Your task to perform on an android device: toggle notification dots Image 0: 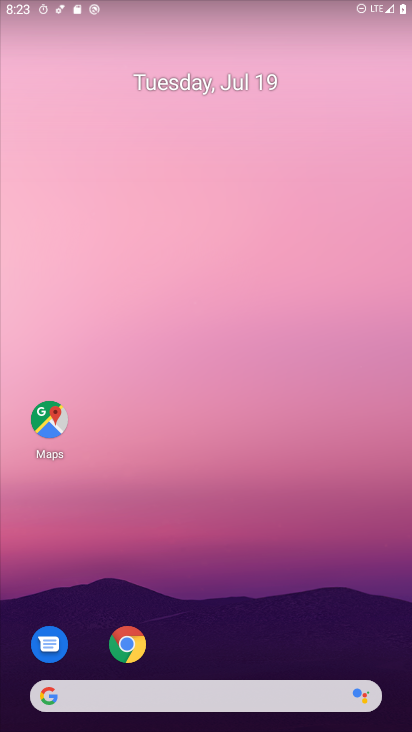
Step 0: drag from (17, 708) to (123, 196)
Your task to perform on an android device: toggle notification dots Image 1: 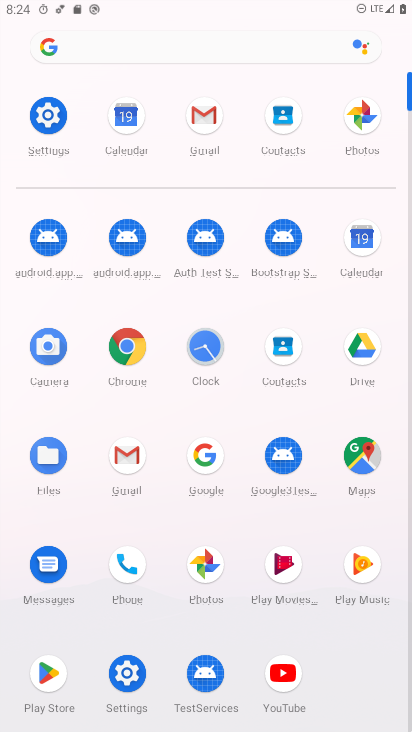
Step 1: click (135, 673)
Your task to perform on an android device: toggle notification dots Image 2: 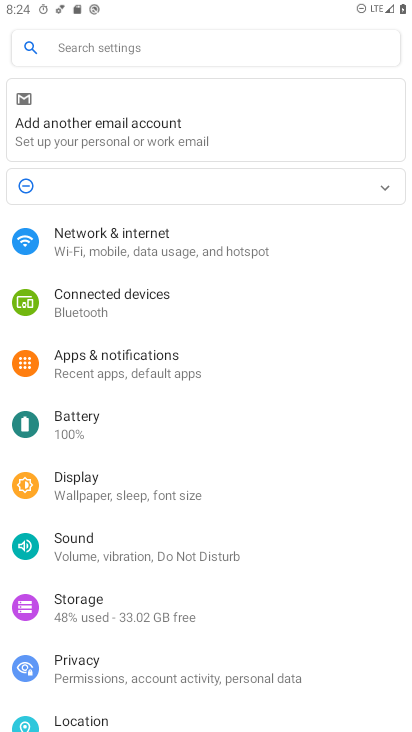
Step 2: click (166, 372)
Your task to perform on an android device: toggle notification dots Image 3: 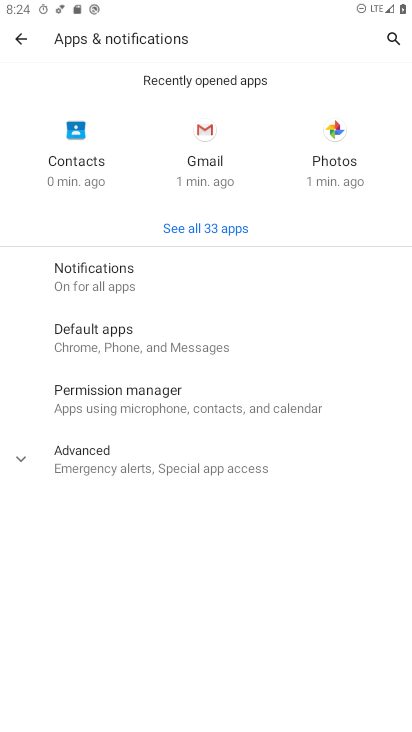
Step 3: click (134, 454)
Your task to perform on an android device: toggle notification dots Image 4: 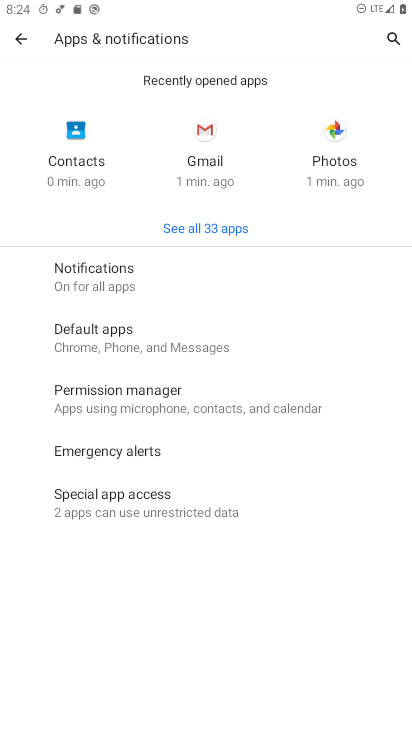
Step 4: click (100, 278)
Your task to perform on an android device: toggle notification dots Image 5: 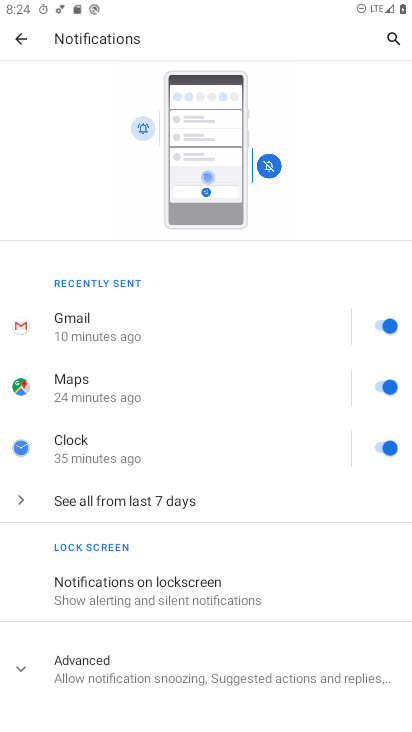
Step 5: click (100, 660)
Your task to perform on an android device: toggle notification dots Image 6: 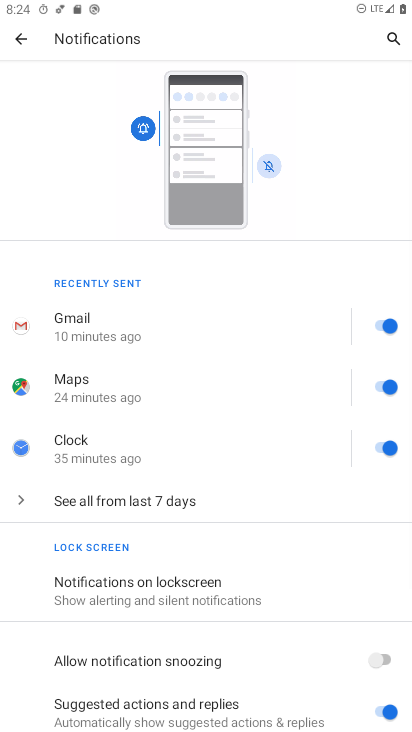
Step 6: drag from (288, 635) to (270, 303)
Your task to perform on an android device: toggle notification dots Image 7: 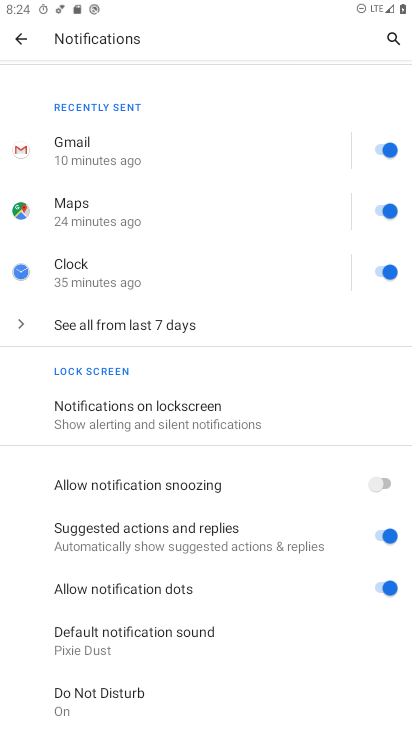
Step 7: click (387, 585)
Your task to perform on an android device: toggle notification dots Image 8: 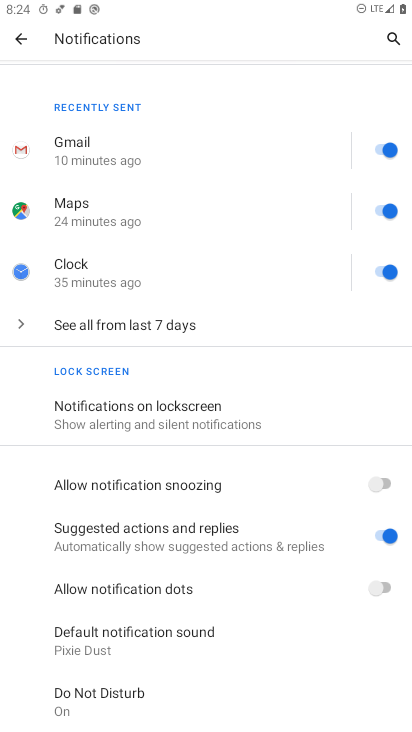
Step 8: task complete